Your task to perform on an android device: Do I have any events this weekend? Image 0: 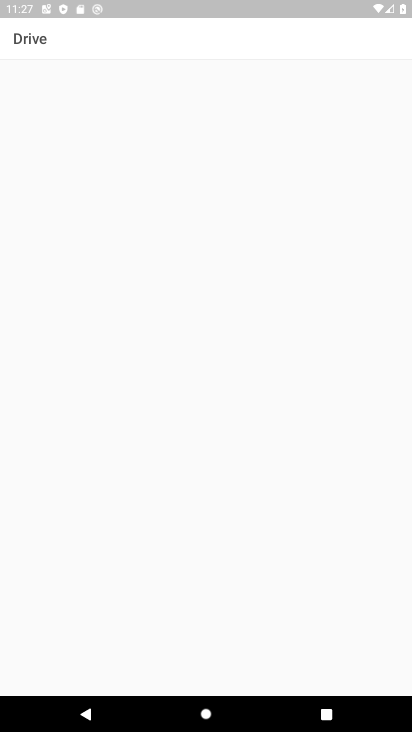
Step 0: press home button
Your task to perform on an android device: Do I have any events this weekend? Image 1: 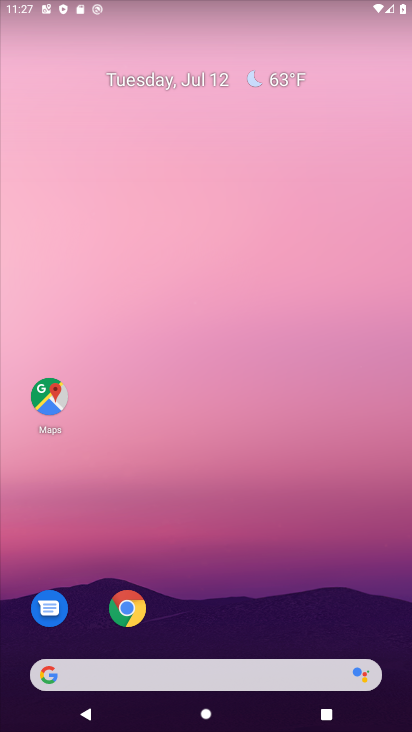
Step 1: drag from (234, 624) to (251, 99)
Your task to perform on an android device: Do I have any events this weekend? Image 2: 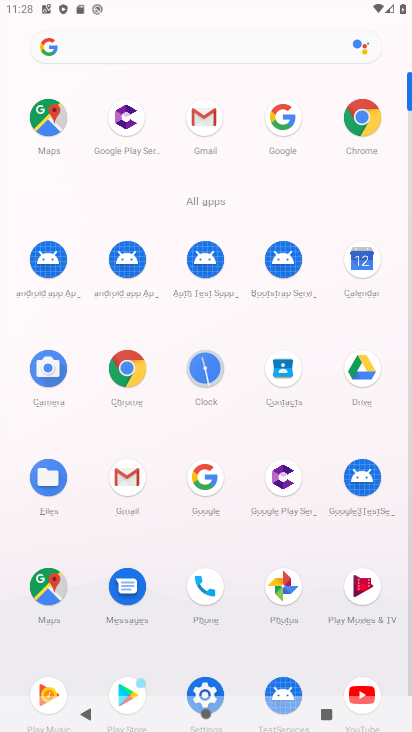
Step 2: click (354, 249)
Your task to perform on an android device: Do I have any events this weekend? Image 3: 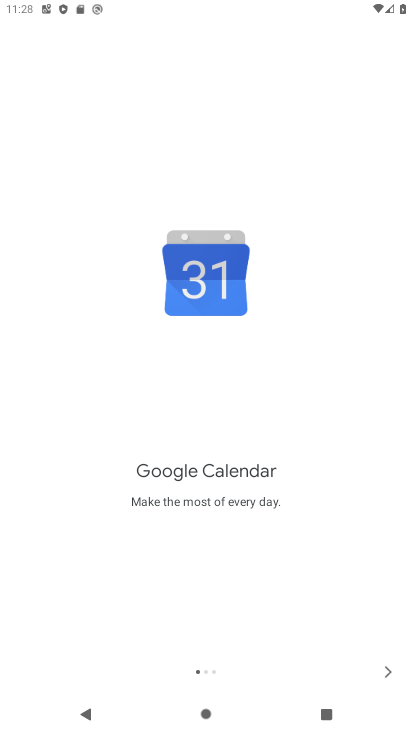
Step 3: click (374, 667)
Your task to perform on an android device: Do I have any events this weekend? Image 4: 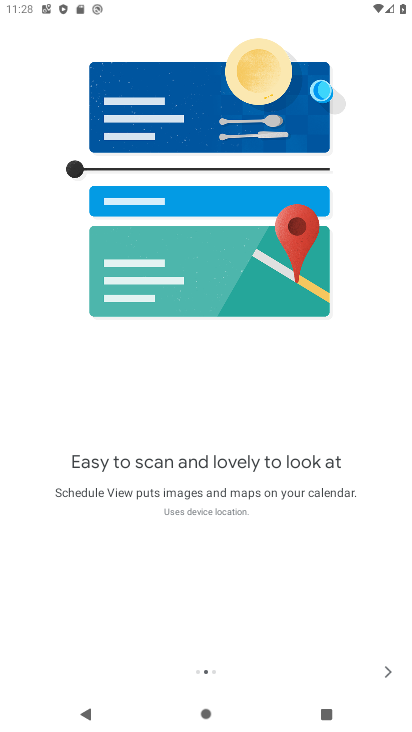
Step 4: click (375, 669)
Your task to perform on an android device: Do I have any events this weekend? Image 5: 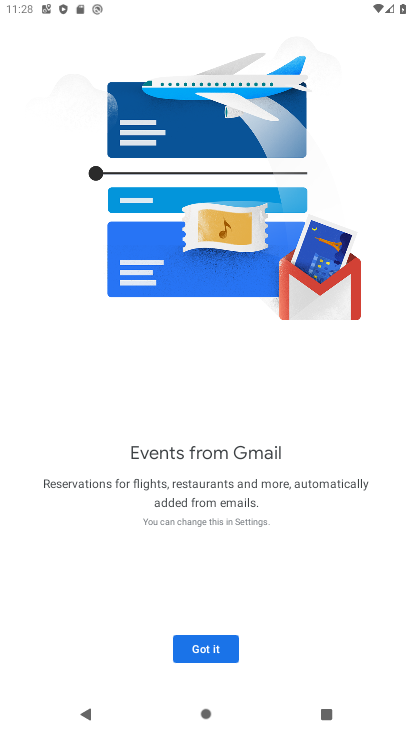
Step 5: click (206, 650)
Your task to perform on an android device: Do I have any events this weekend? Image 6: 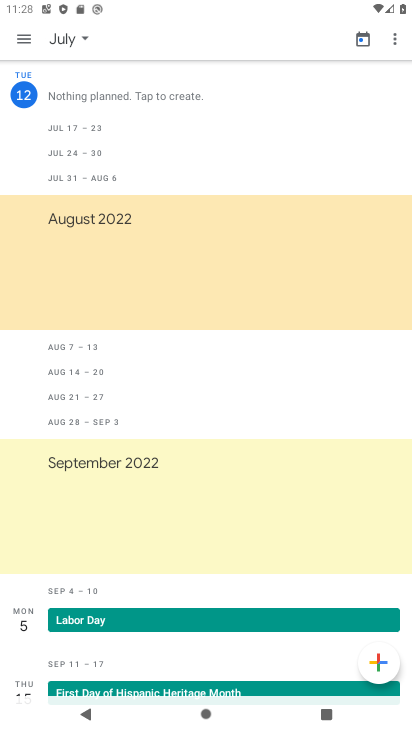
Step 6: click (81, 37)
Your task to perform on an android device: Do I have any events this weekend? Image 7: 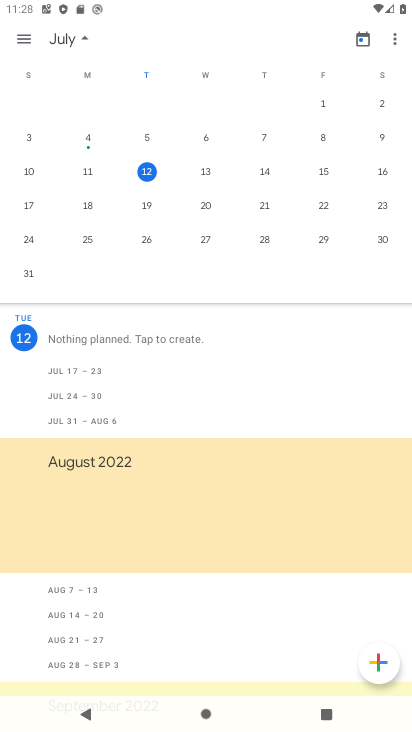
Step 7: click (266, 172)
Your task to perform on an android device: Do I have any events this weekend? Image 8: 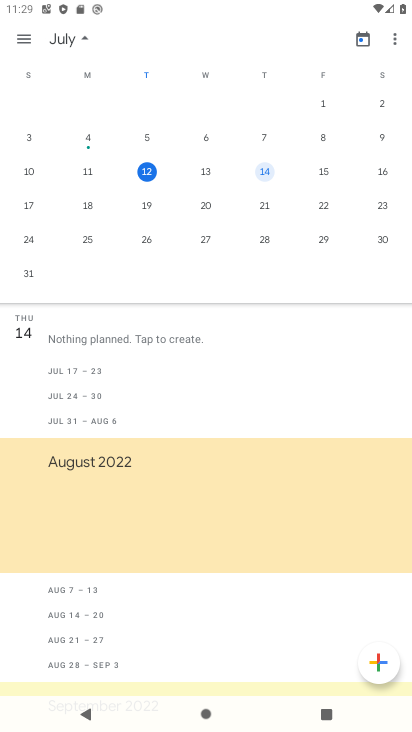
Step 8: task complete